Your task to perform on an android device: open app "YouTube Kids" (install if not already installed) Image 0: 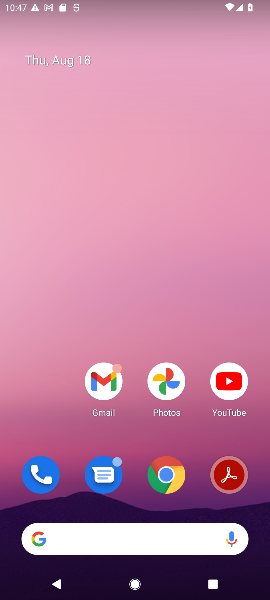
Step 0: drag from (124, 501) to (166, 0)
Your task to perform on an android device: open app "YouTube Kids" (install if not already installed) Image 1: 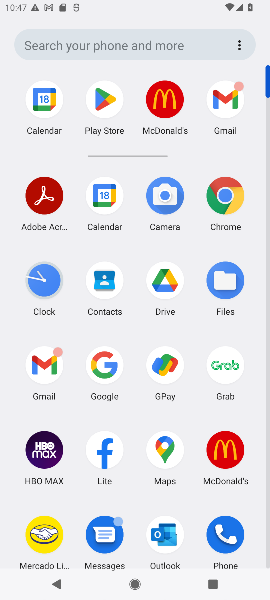
Step 1: click (100, 103)
Your task to perform on an android device: open app "YouTube Kids" (install if not already installed) Image 2: 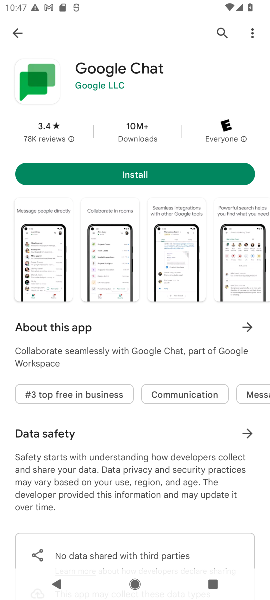
Step 2: click (15, 31)
Your task to perform on an android device: open app "YouTube Kids" (install if not already installed) Image 3: 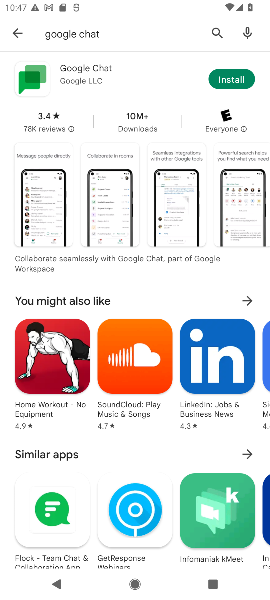
Step 3: click (215, 36)
Your task to perform on an android device: open app "YouTube Kids" (install if not already installed) Image 4: 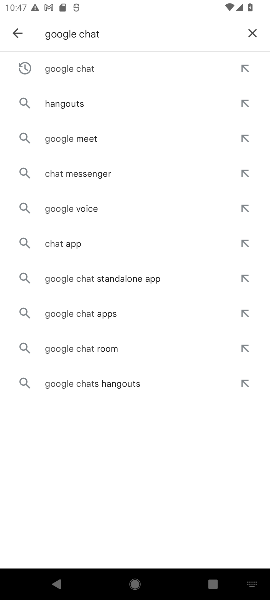
Step 4: click (246, 31)
Your task to perform on an android device: open app "YouTube Kids" (install if not already installed) Image 5: 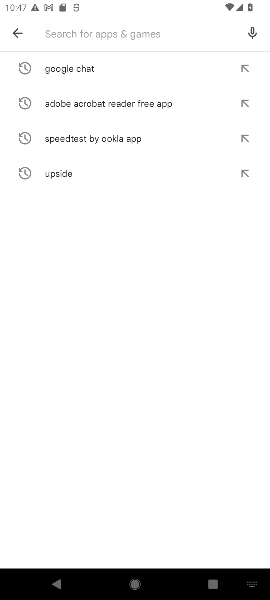
Step 5: type "YouTube Kids"
Your task to perform on an android device: open app "YouTube Kids" (install if not already installed) Image 6: 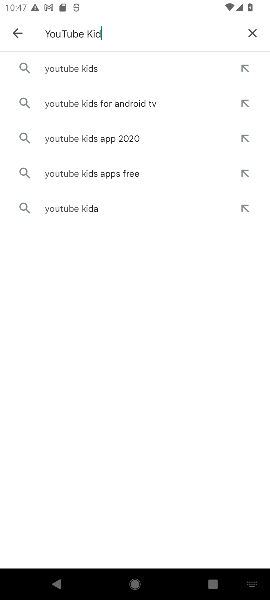
Step 6: type ""
Your task to perform on an android device: open app "YouTube Kids" (install if not already installed) Image 7: 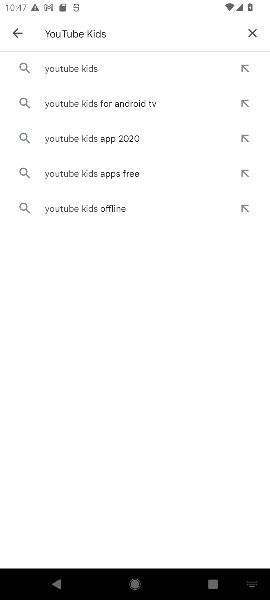
Step 7: click (76, 68)
Your task to perform on an android device: open app "YouTube Kids" (install if not already installed) Image 8: 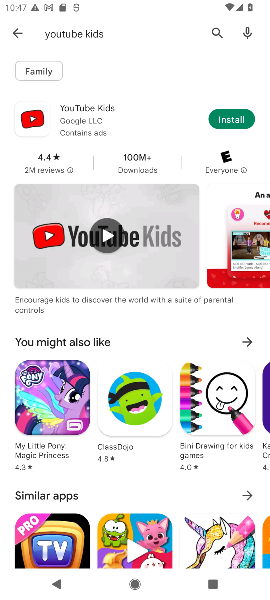
Step 8: click (244, 120)
Your task to perform on an android device: open app "YouTube Kids" (install if not already installed) Image 9: 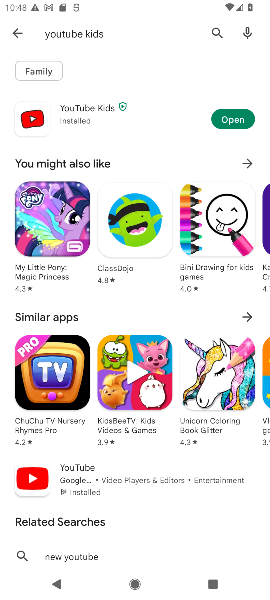
Step 9: press home button
Your task to perform on an android device: open app "YouTube Kids" (install if not already installed) Image 10: 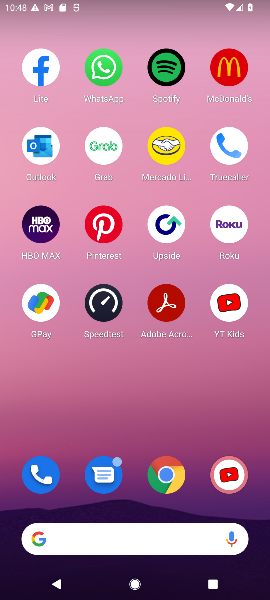
Step 10: click (224, 317)
Your task to perform on an android device: open app "YouTube Kids" (install if not already installed) Image 11: 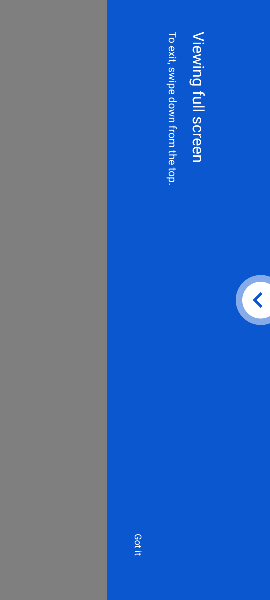
Step 11: click (263, 292)
Your task to perform on an android device: open app "YouTube Kids" (install if not already installed) Image 12: 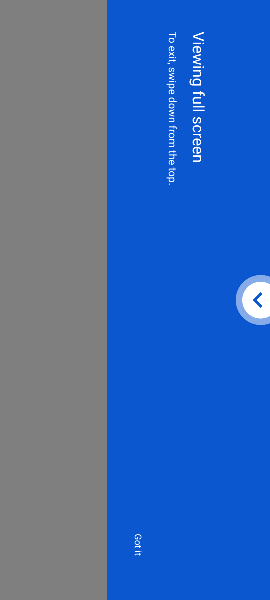
Step 12: click (137, 543)
Your task to perform on an android device: open app "YouTube Kids" (install if not already installed) Image 13: 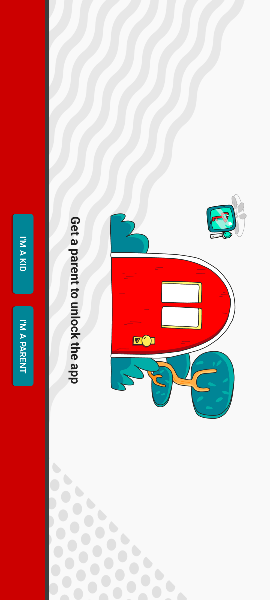
Step 13: task complete